Your task to perform on an android device: all mails in gmail Image 0: 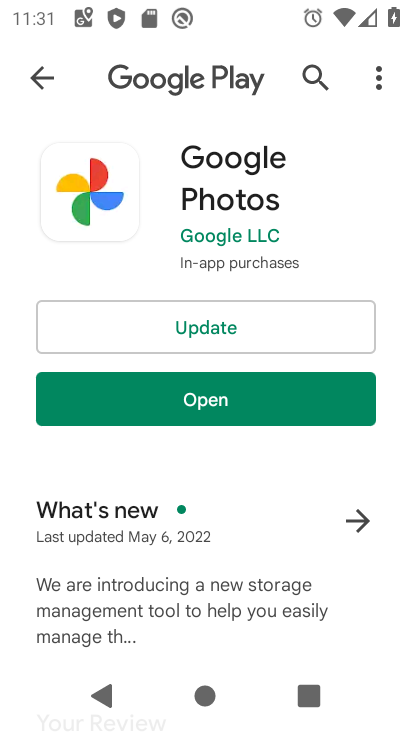
Step 0: press home button
Your task to perform on an android device: all mails in gmail Image 1: 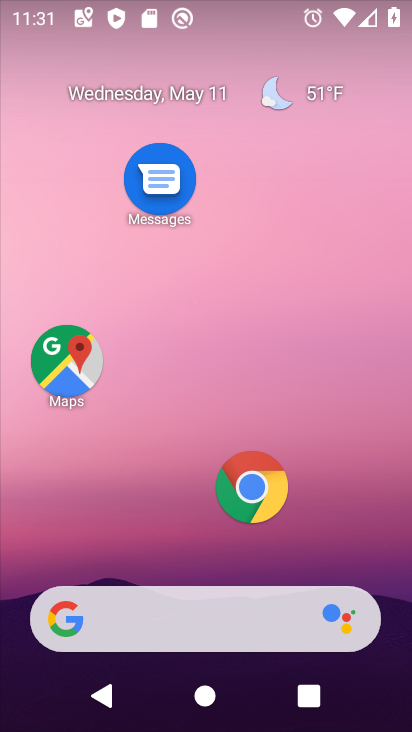
Step 1: drag from (170, 519) to (216, 201)
Your task to perform on an android device: all mails in gmail Image 2: 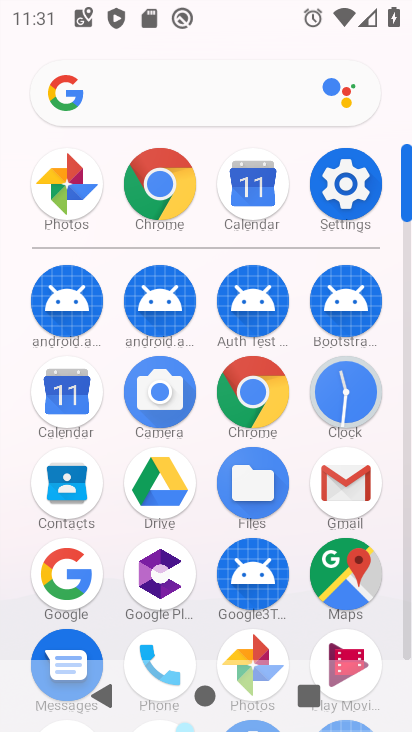
Step 2: click (341, 498)
Your task to perform on an android device: all mails in gmail Image 3: 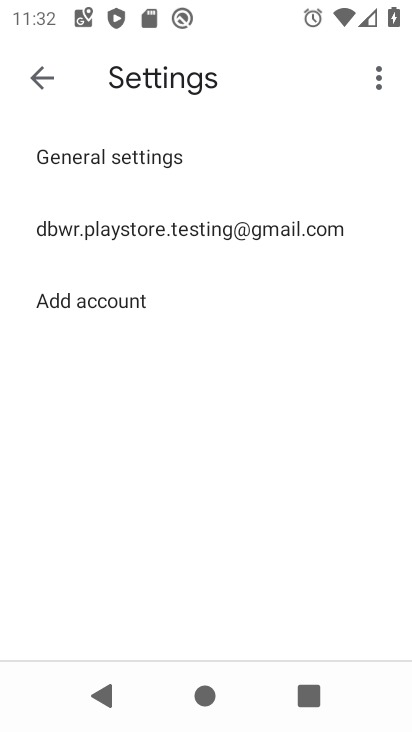
Step 3: click (44, 79)
Your task to perform on an android device: all mails in gmail Image 4: 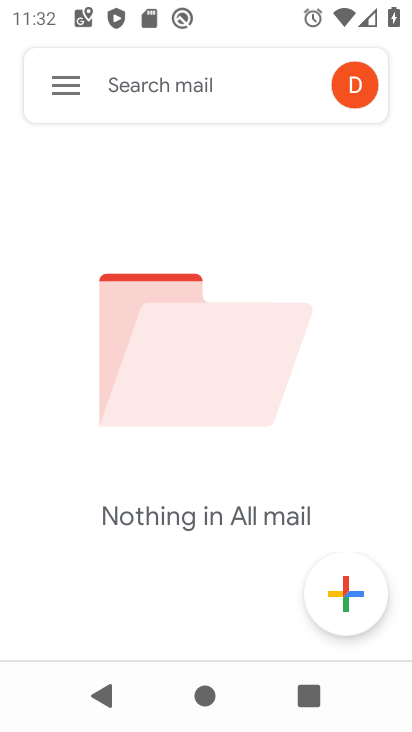
Step 4: click (44, 79)
Your task to perform on an android device: all mails in gmail Image 5: 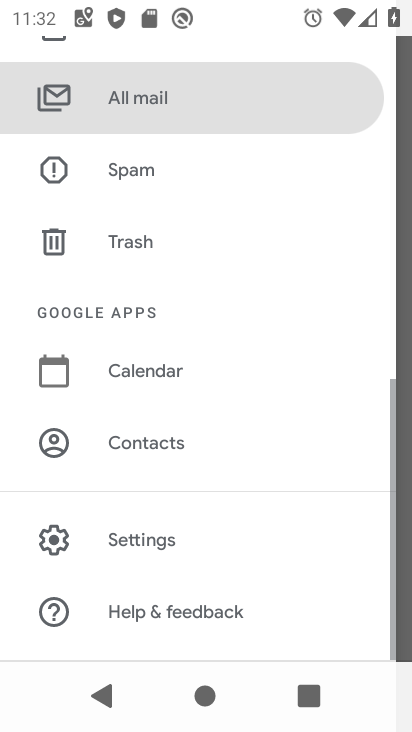
Step 5: click (160, 104)
Your task to perform on an android device: all mails in gmail Image 6: 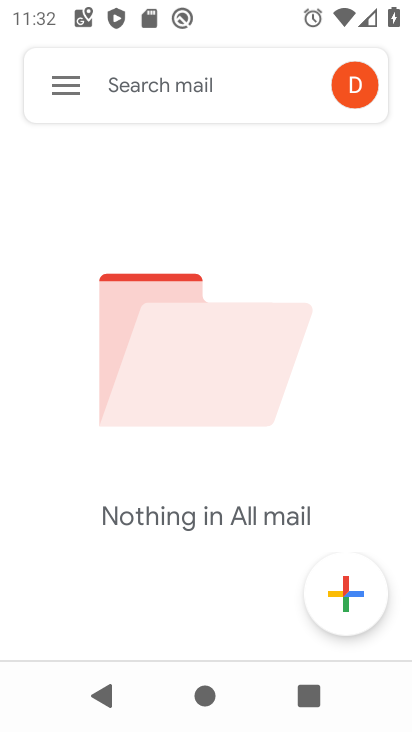
Step 6: task complete